Your task to perform on an android device: toggle priority inbox in the gmail app Image 0: 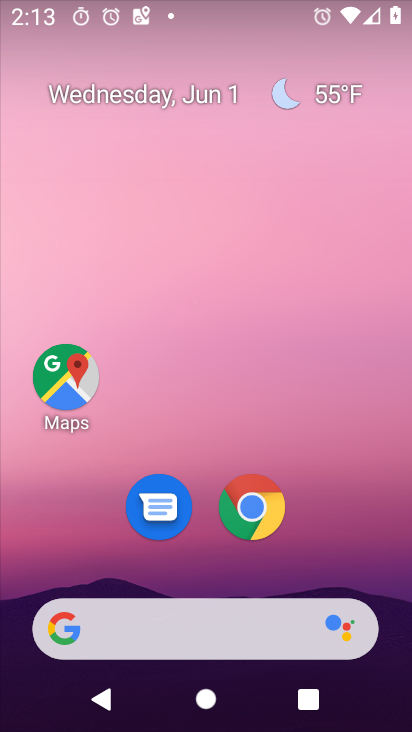
Step 0: drag from (354, 603) to (348, 14)
Your task to perform on an android device: toggle priority inbox in the gmail app Image 1: 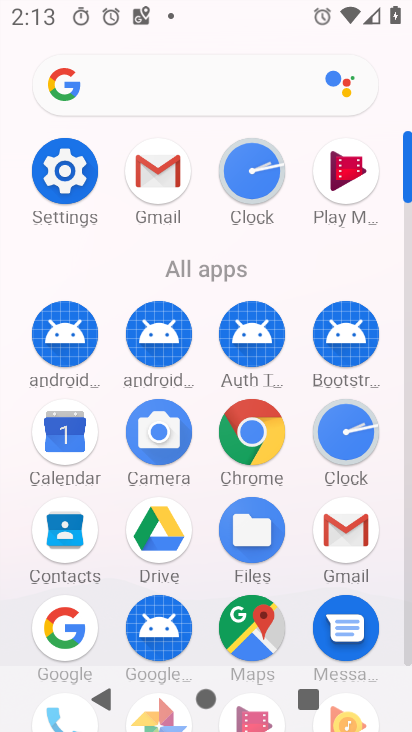
Step 1: click (151, 177)
Your task to perform on an android device: toggle priority inbox in the gmail app Image 2: 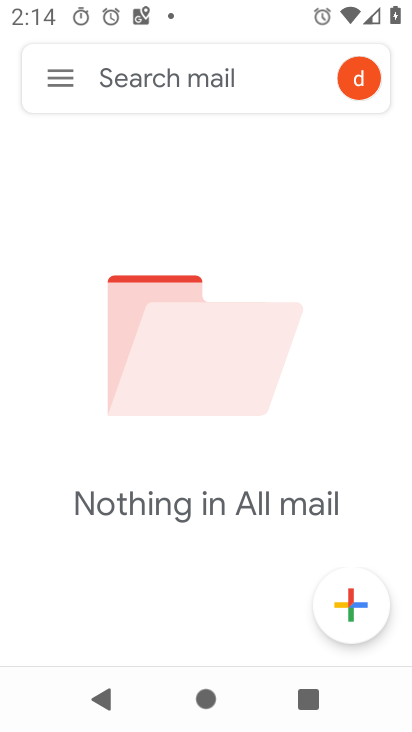
Step 2: click (58, 83)
Your task to perform on an android device: toggle priority inbox in the gmail app Image 3: 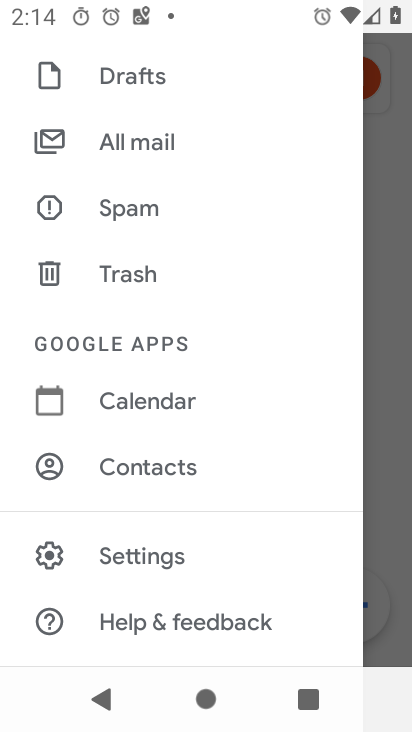
Step 3: click (172, 562)
Your task to perform on an android device: toggle priority inbox in the gmail app Image 4: 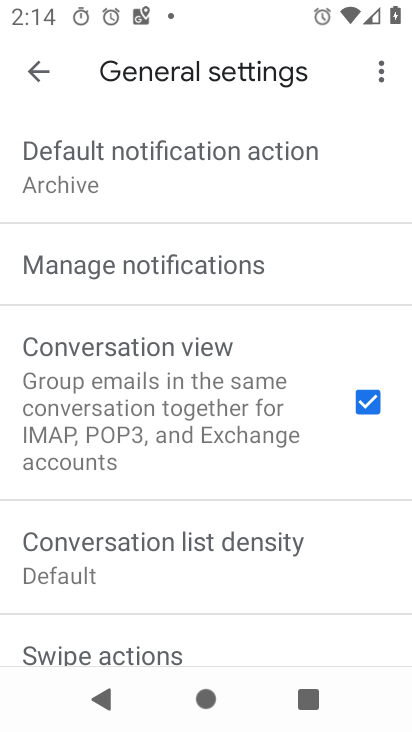
Step 4: click (43, 69)
Your task to perform on an android device: toggle priority inbox in the gmail app Image 5: 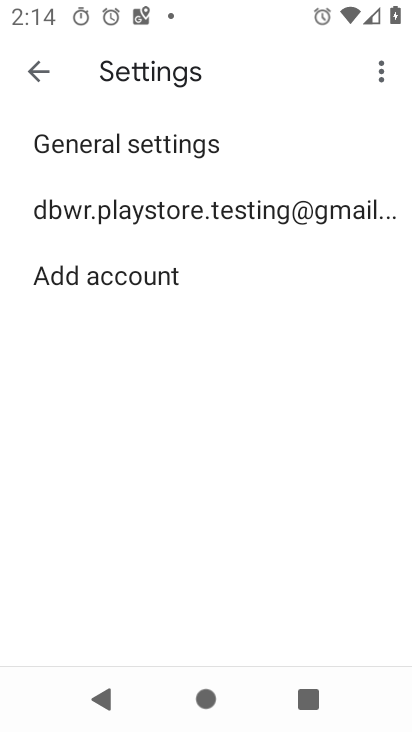
Step 5: click (110, 210)
Your task to perform on an android device: toggle priority inbox in the gmail app Image 6: 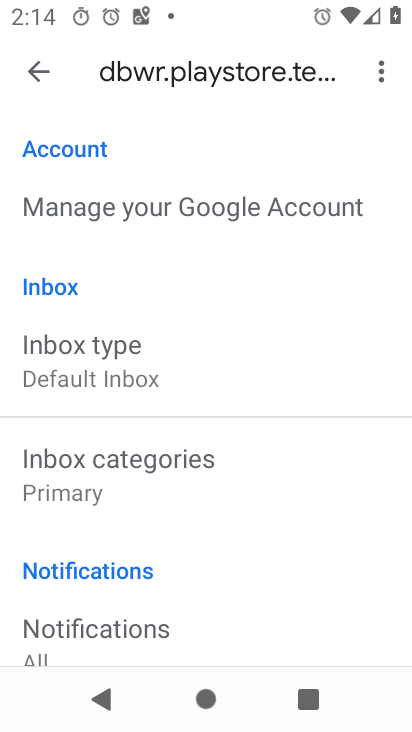
Step 6: click (71, 364)
Your task to perform on an android device: toggle priority inbox in the gmail app Image 7: 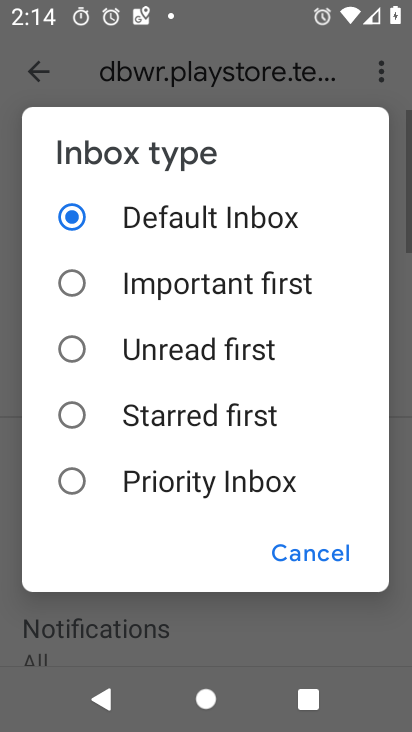
Step 7: click (74, 483)
Your task to perform on an android device: toggle priority inbox in the gmail app Image 8: 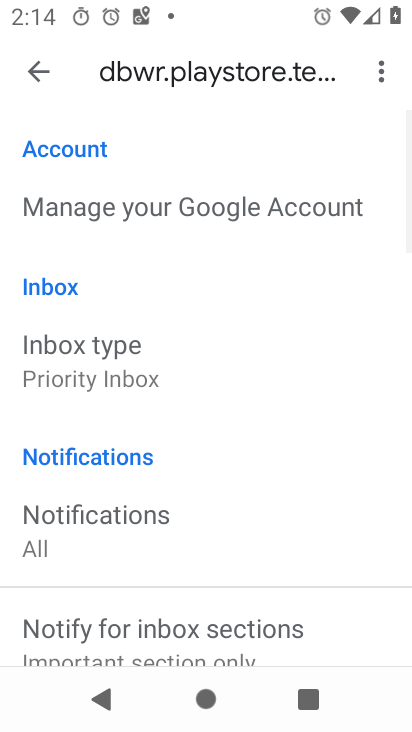
Step 8: task complete